Your task to perform on an android device: Open network settings Image 0: 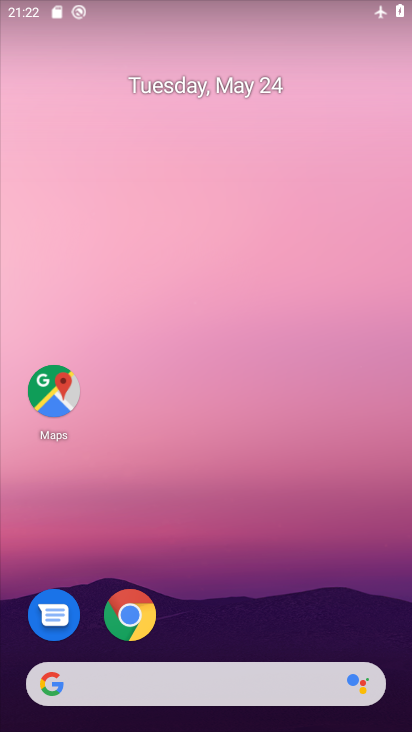
Step 0: drag from (221, 510) to (223, 291)
Your task to perform on an android device: Open network settings Image 1: 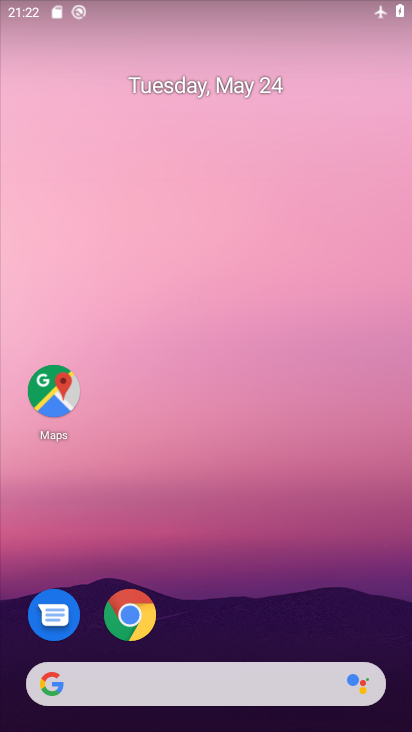
Step 1: drag from (225, 559) to (235, 70)
Your task to perform on an android device: Open network settings Image 2: 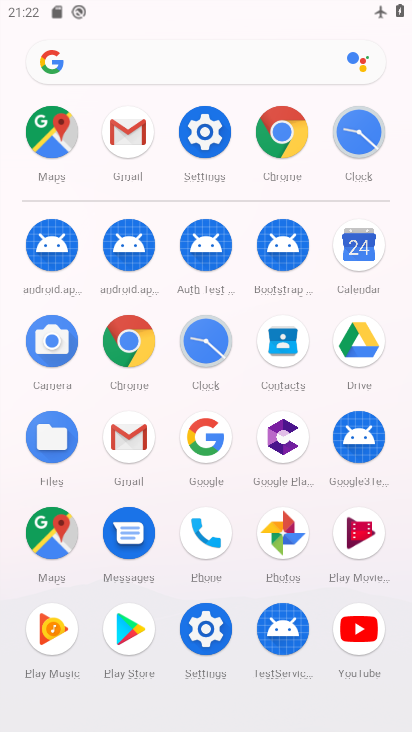
Step 2: click (196, 118)
Your task to perform on an android device: Open network settings Image 3: 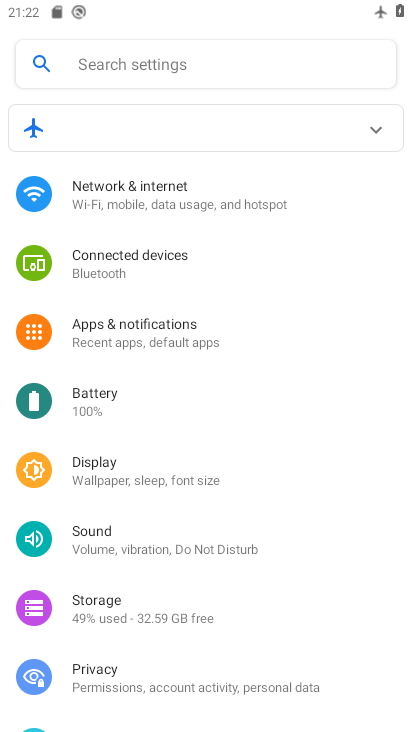
Step 3: click (222, 196)
Your task to perform on an android device: Open network settings Image 4: 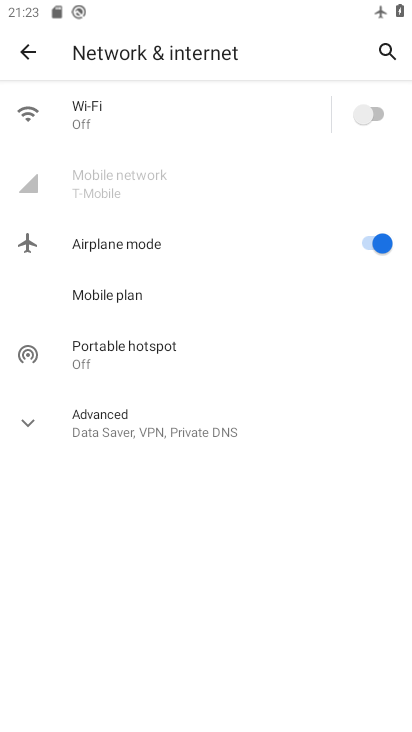
Step 4: task complete